Your task to perform on an android device: Go to calendar. Show me events next week Image 0: 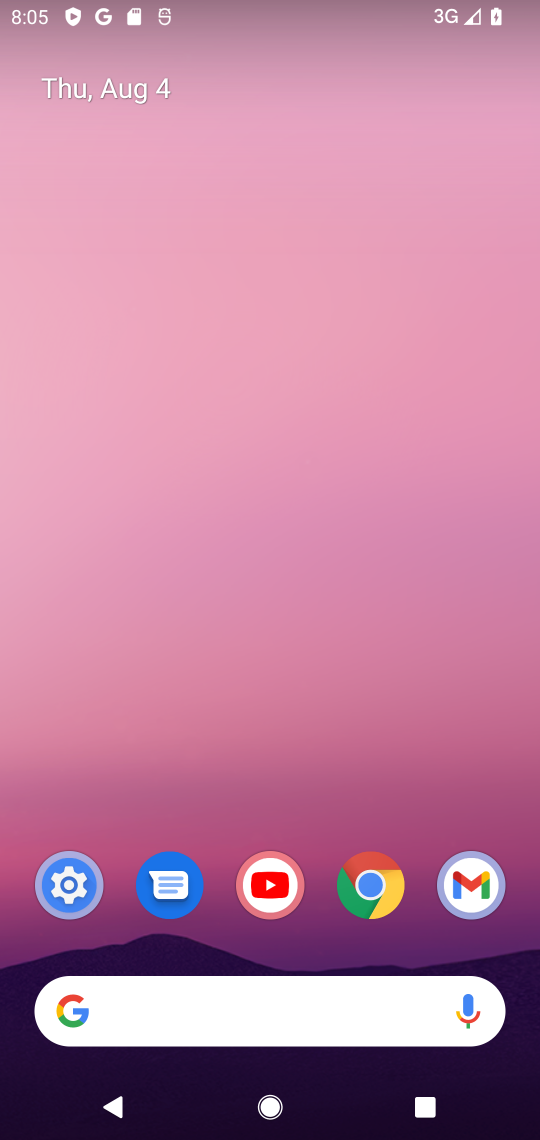
Step 0: drag from (280, 794) to (297, 12)
Your task to perform on an android device: Go to calendar. Show me events next week Image 1: 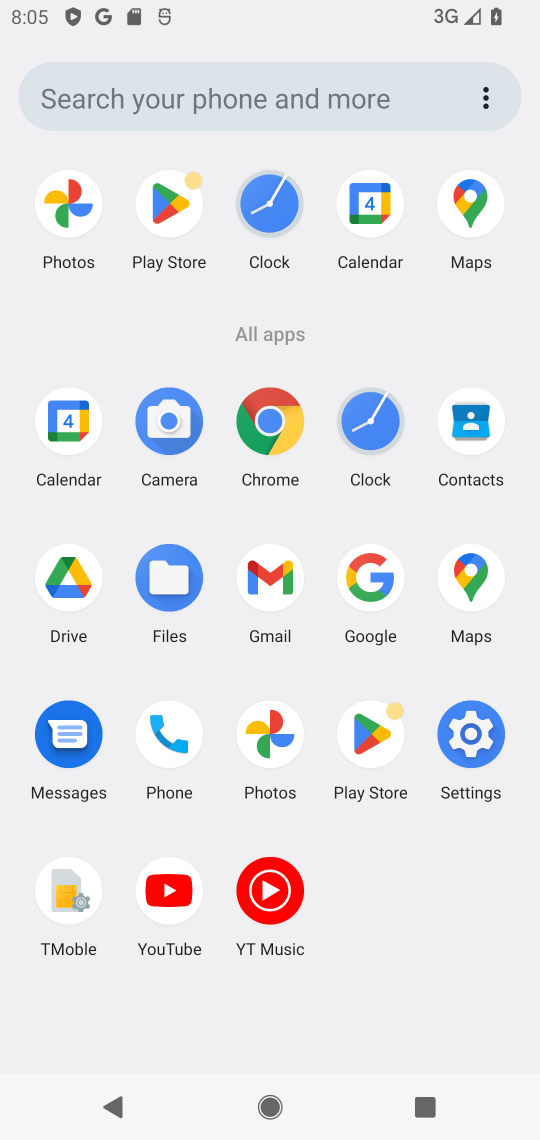
Step 1: click (58, 420)
Your task to perform on an android device: Go to calendar. Show me events next week Image 2: 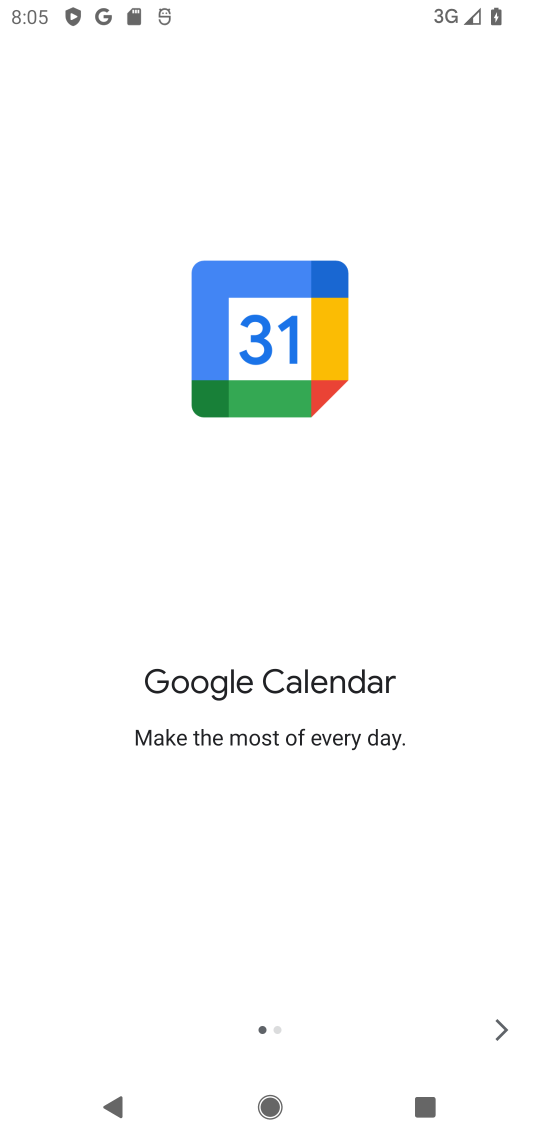
Step 2: click (490, 1035)
Your task to perform on an android device: Go to calendar. Show me events next week Image 3: 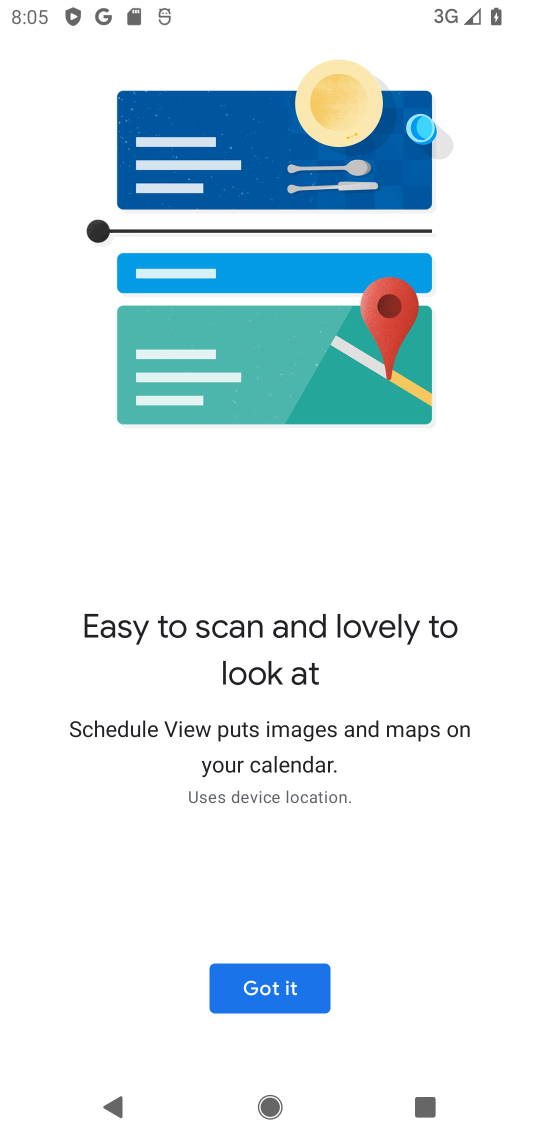
Step 3: click (287, 980)
Your task to perform on an android device: Go to calendar. Show me events next week Image 4: 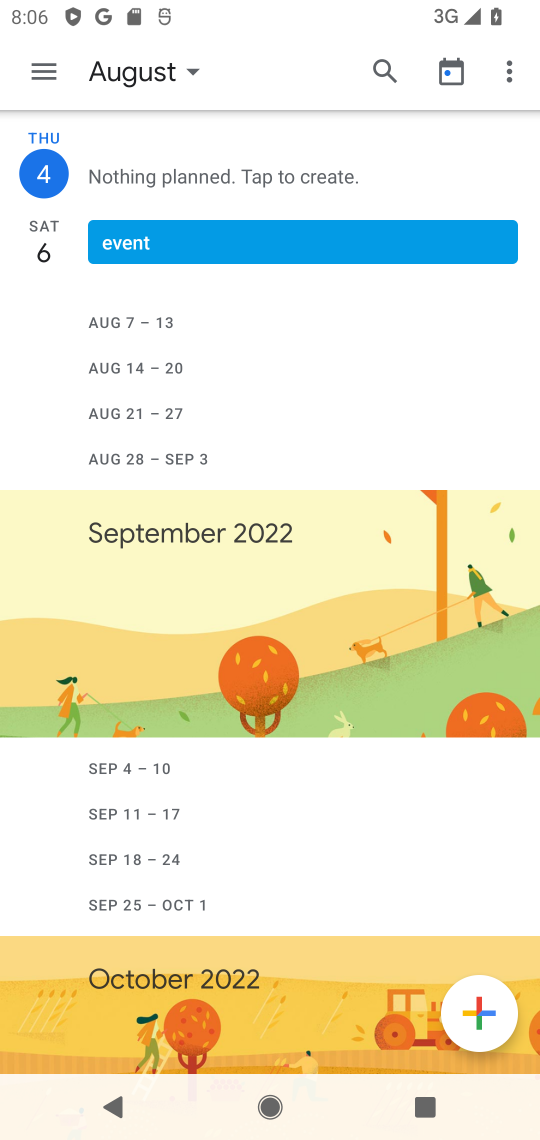
Step 4: click (193, 64)
Your task to perform on an android device: Go to calendar. Show me events next week Image 5: 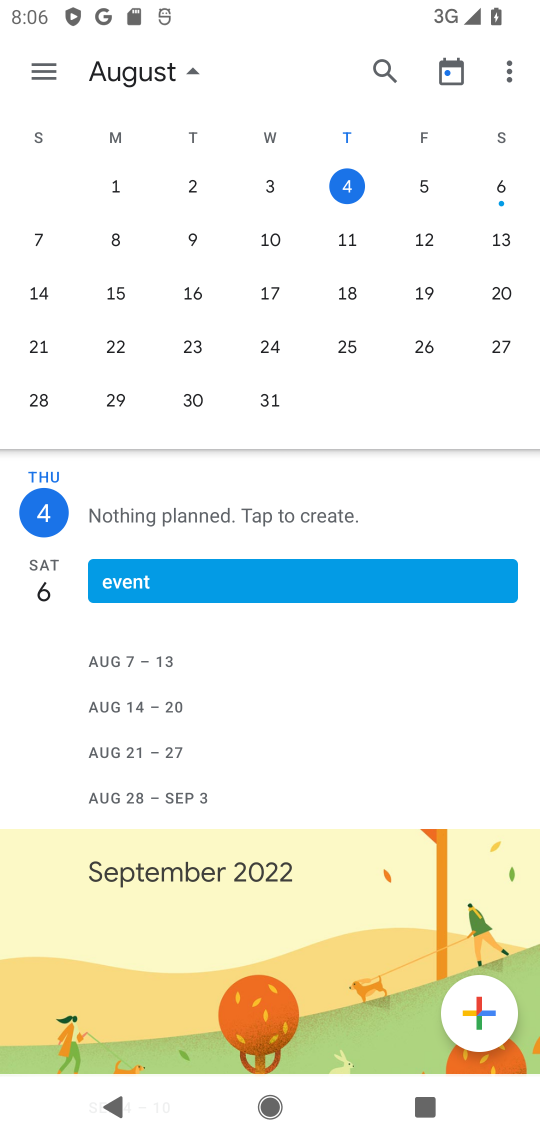
Step 5: click (37, 67)
Your task to perform on an android device: Go to calendar. Show me events next week Image 6: 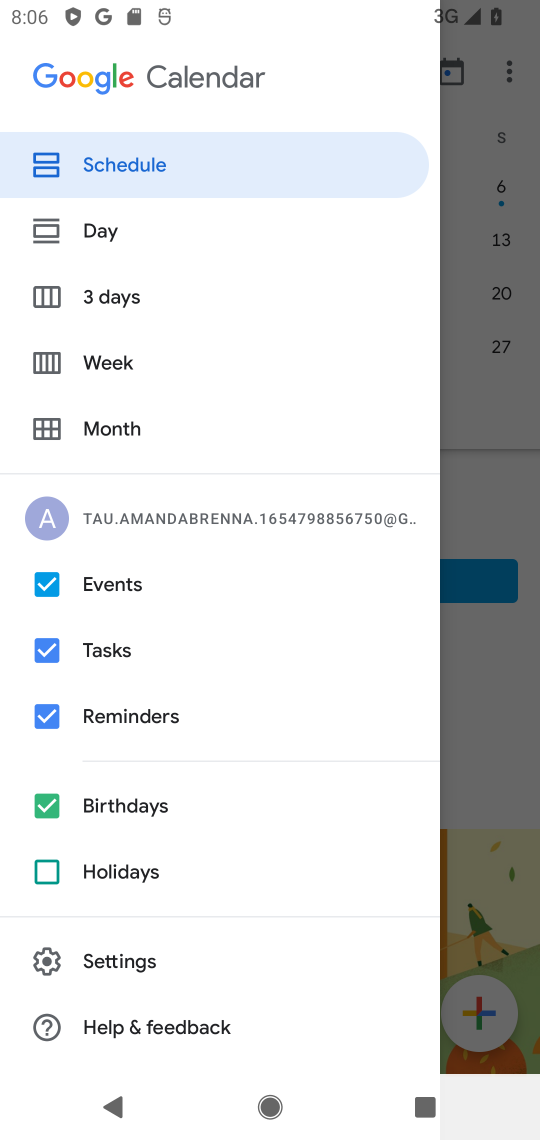
Step 6: click (109, 353)
Your task to perform on an android device: Go to calendar. Show me events next week Image 7: 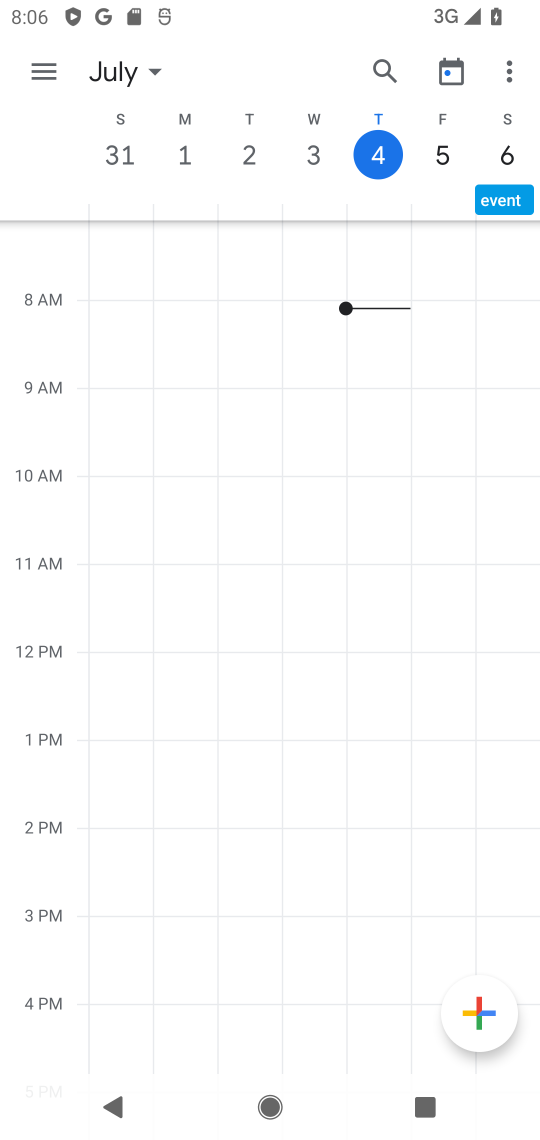
Step 7: drag from (510, 146) to (60, 163)
Your task to perform on an android device: Go to calendar. Show me events next week Image 8: 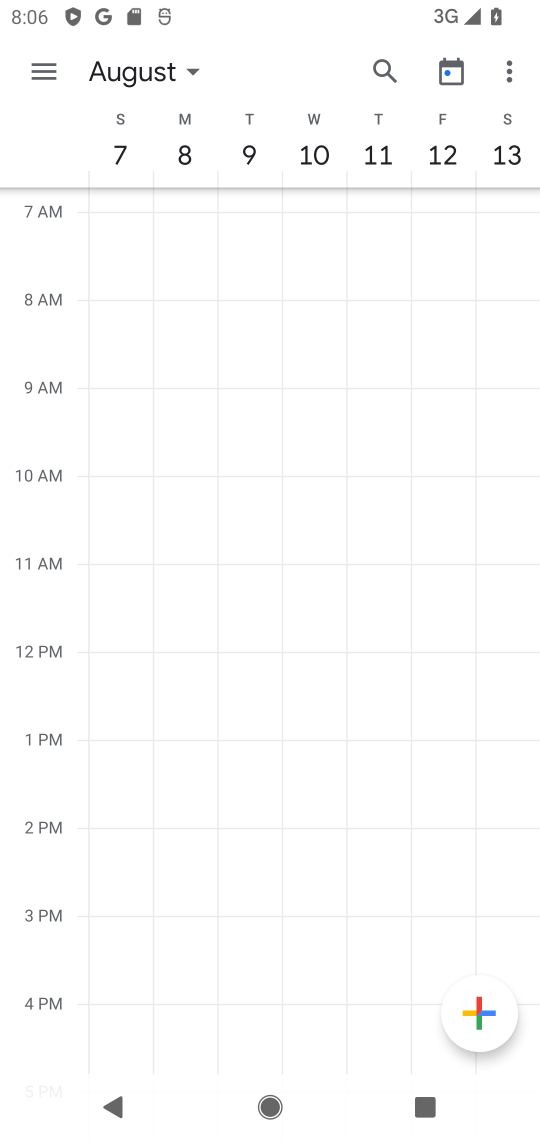
Step 8: click (108, 154)
Your task to perform on an android device: Go to calendar. Show me events next week Image 9: 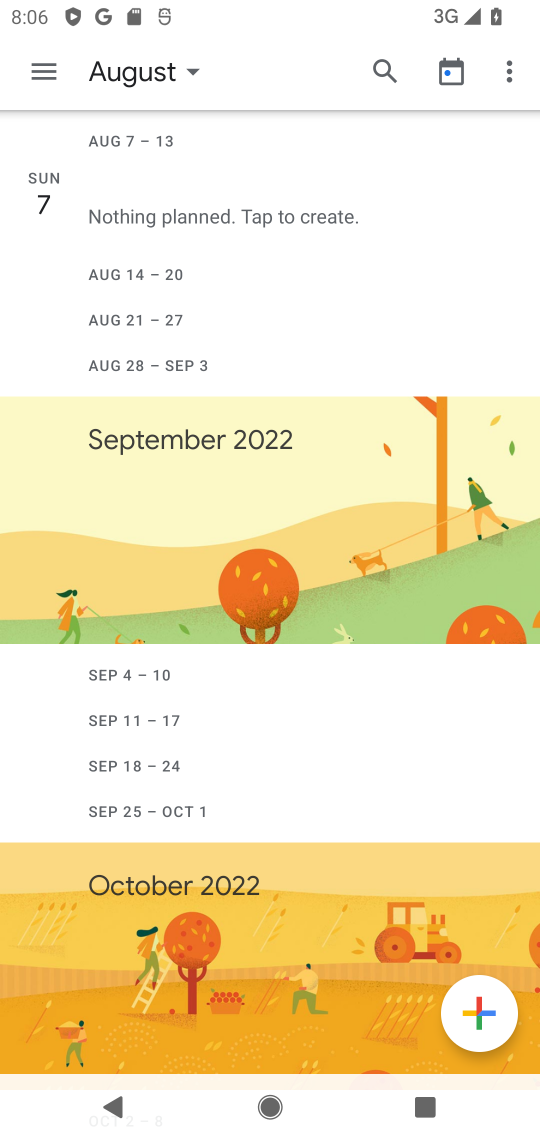
Step 9: task complete